Your task to perform on an android device: Turn off the flashlight Image 0: 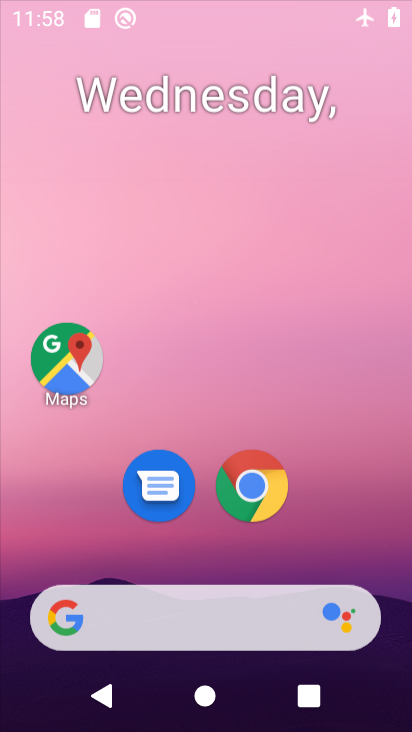
Step 0: drag from (301, 173) to (228, 262)
Your task to perform on an android device: Turn off the flashlight Image 1: 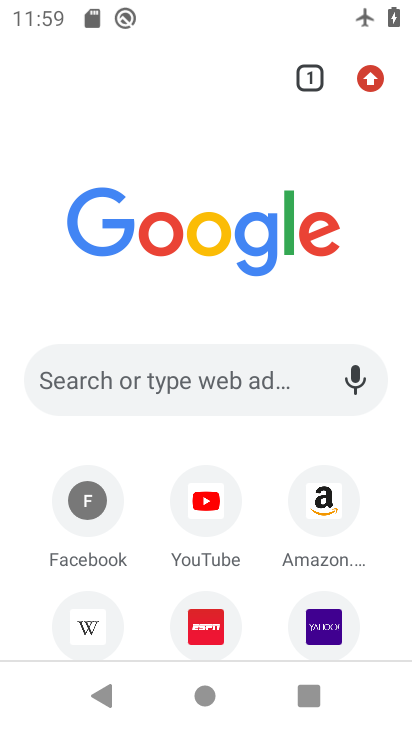
Step 1: press home button
Your task to perform on an android device: Turn off the flashlight Image 2: 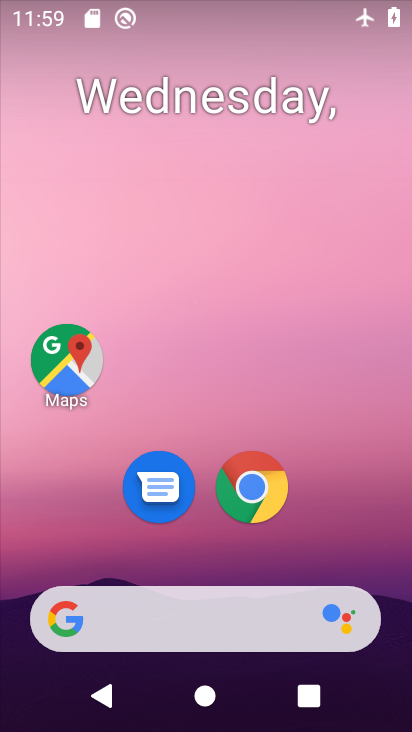
Step 2: drag from (257, 571) to (307, 69)
Your task to perform on an android device: Turn off the flashlight Image 3: 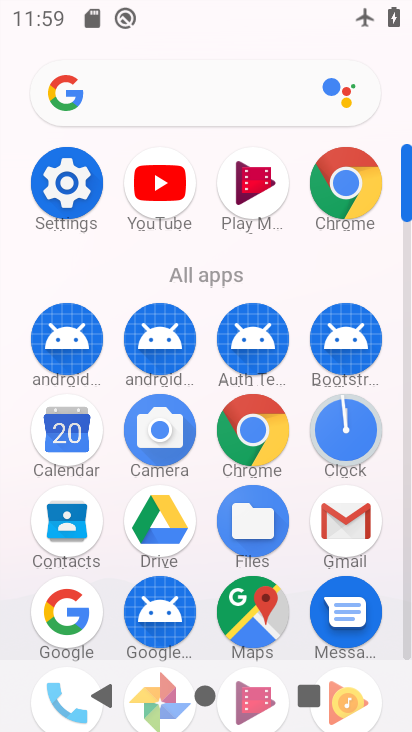
Step 3: click (66, 212)
Your task to perform on an android device: Turn off the flashlight Image 4: 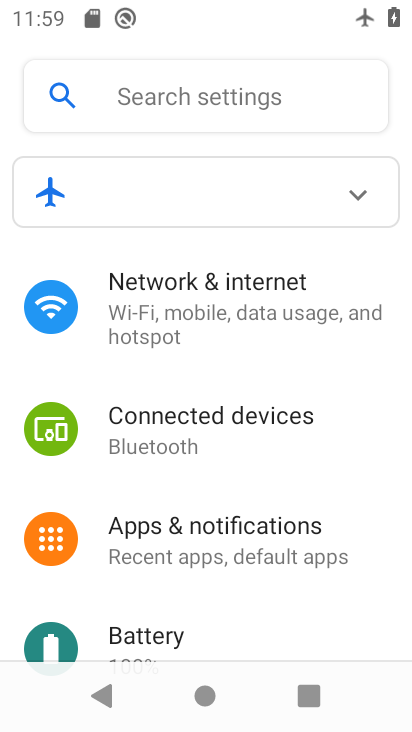
Step 4: click (184, 95)
Your task to perform on an android device: Turn off the flashlight Image 5: 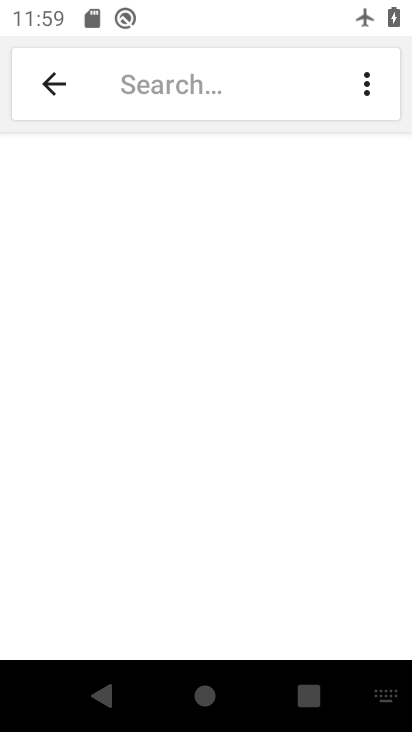
Step 5: click (375, 699)
Your task to perform on an android device: Turn off the flashlight Image 6: 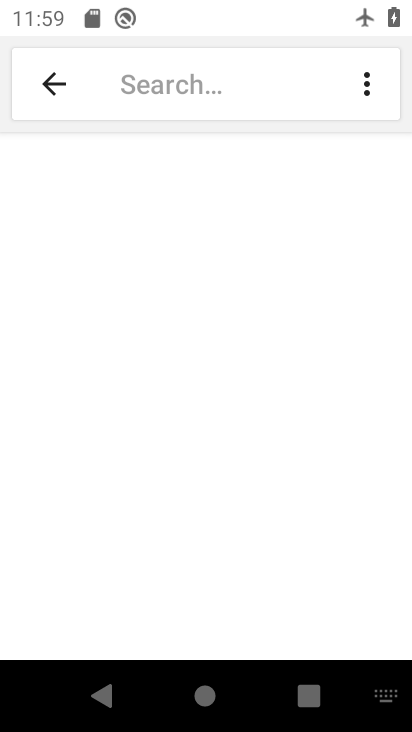
Step 6: click (373, 688)
Your task to perform on an android device: Turn off the flashlight Image 7: 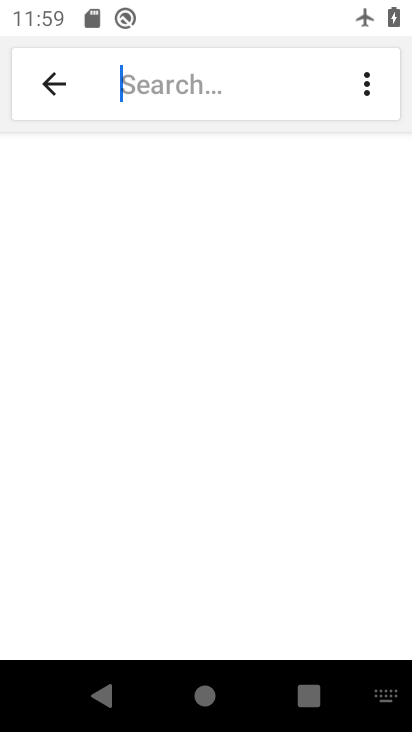
Step 7: drag from (390, 699) to (375, 631)
Your task to perform on an android device: Turn off the flashlight Image 8: 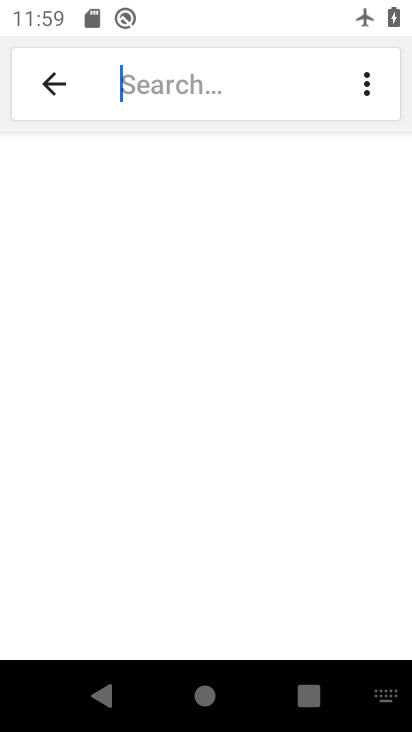
Step 8: click (385, 690)
Your task to perform on an android device: Turn off the flashlight Image 9: 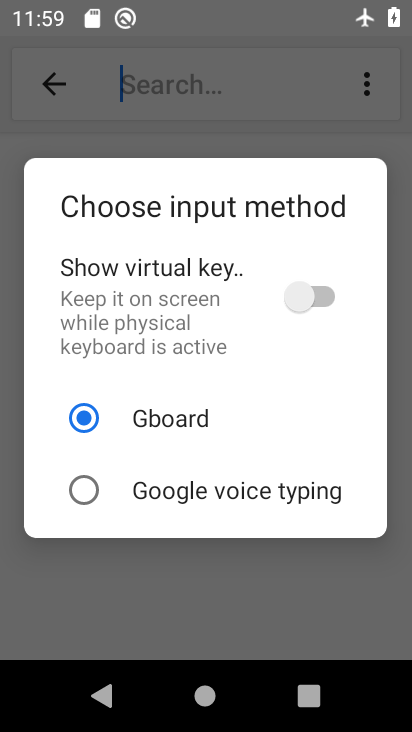
Step 9: click (321, 297)
Your task to perform on an android device: Turn off the flashlight Image 10: 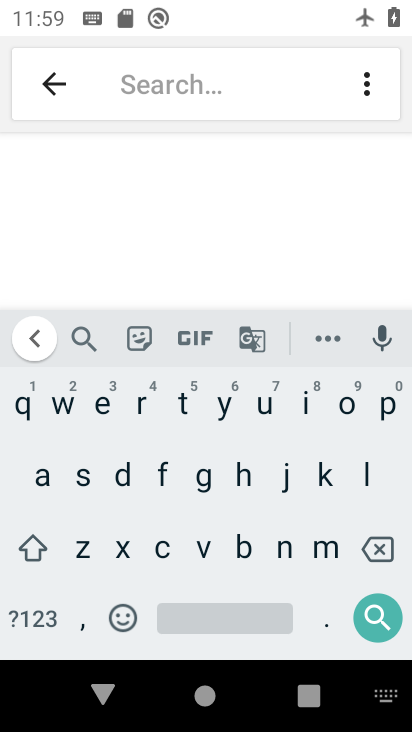
Step 10: click (165, 471)
Your task to perform on an android device: Turn off the flashlight Image 11: 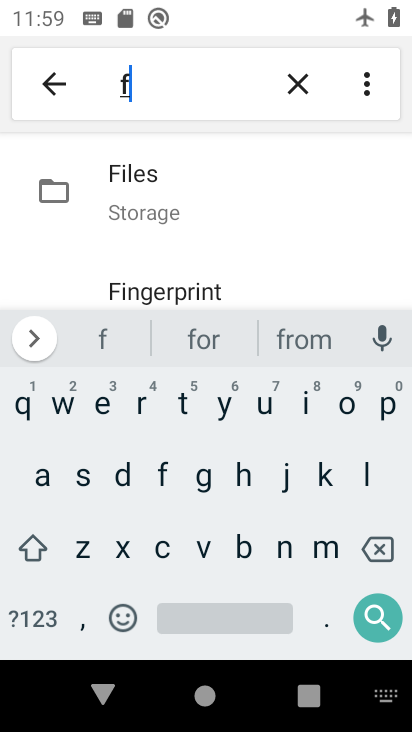
Step 11: click (365, 472)
Your task to perform on an android device: Turn off the flashlight Image 12: 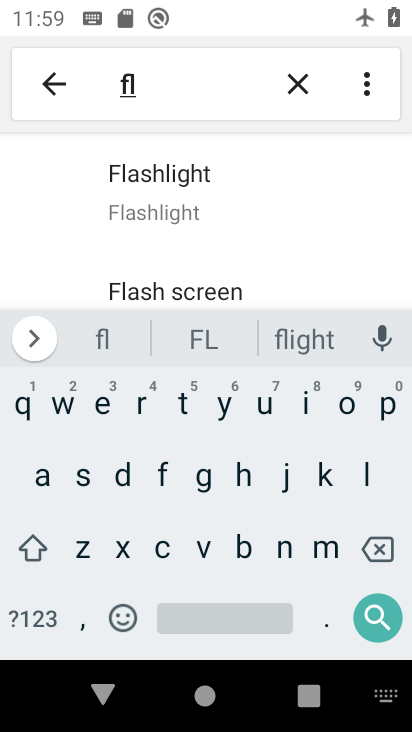
Step 12: click (147, 182)
Your task to perform on an android device: Turn off the flashlight Image 13: 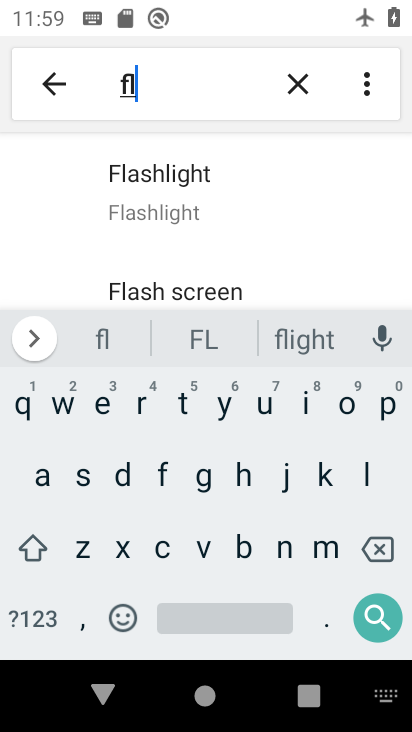
Step 13: click (144, 200)
Your task to perform on an android device: Turn off the flashlight Image 14: 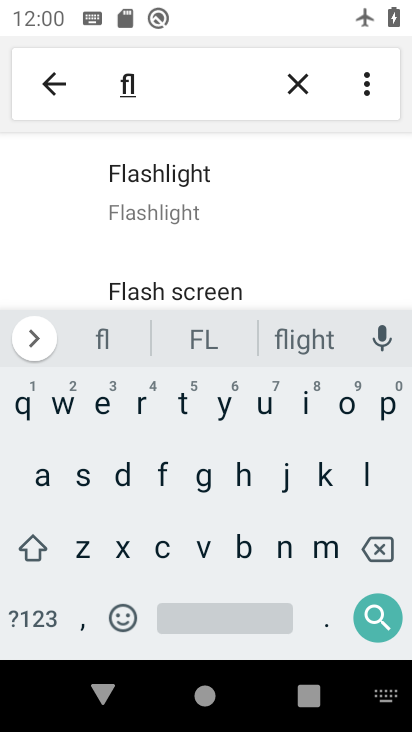
Step 14: task complete